Your task to perform on an android device: Toggle the flashlight Image 0: 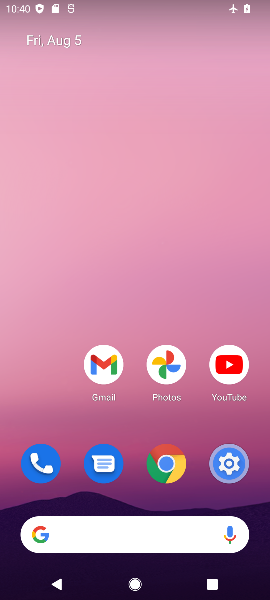
Step 0: drag from (143, 476) to (147, 53)
Your task to perform on an android device: Toggle the flashlight Image 1: 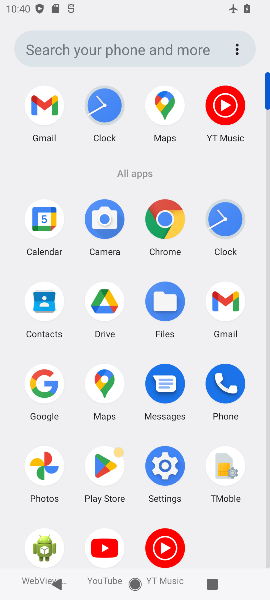
Step 1: drag from (127, 24) to (124, 283)
Your task to perform on an android device: Toggle the flashlight Image 2: 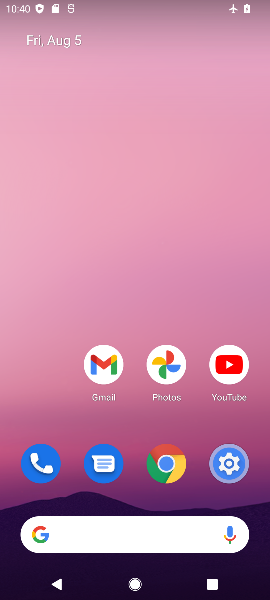
Step 2: drag from (118, 2) to (123, 291)
Your task to perform on an android device: Toggle the flashlight Image 3: 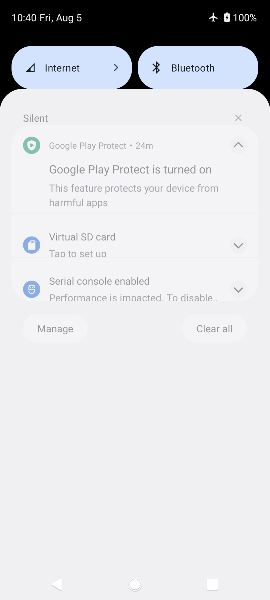
Step 3: drag from (108, 2) to (116, 287)
Your task to perform on an android device: Toggle the flashlight Image 4: 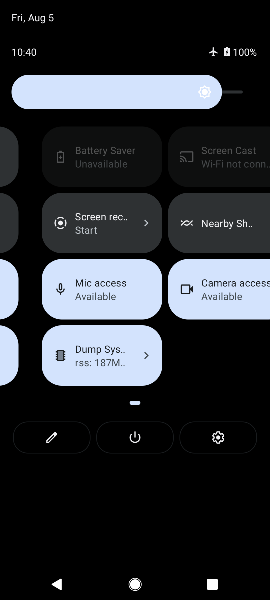
Step 4: click (69, 221)
Your task to perform on an android device: Toggle the flashlight Image 5: 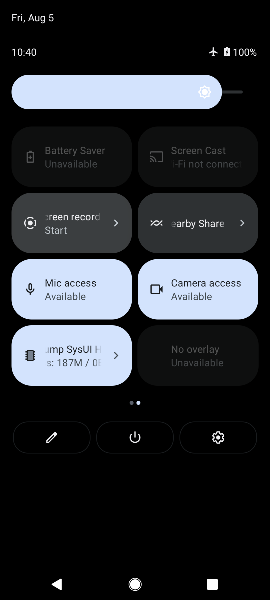
Step 5: drag from (69, 221) to (216, 234)
Your task to perform on an android device: Toggle the flashlight Image 6: 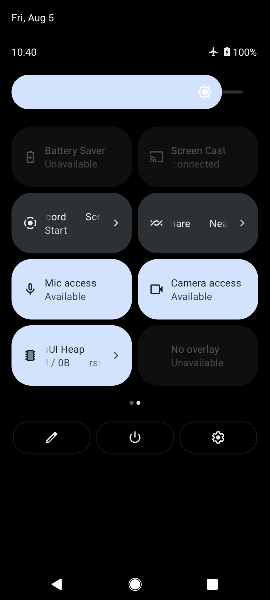
Step 6: click (99, 397)
Your task to perform on an android device: Toggle the flashlight Image 7: 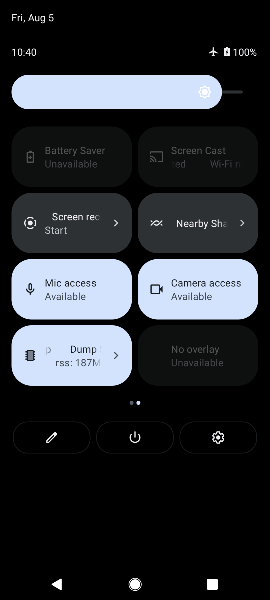
Step 7: drag from (122, 403) to (195, 400)
Your task to perform on an android device: Toggle the flashlight Image 8: 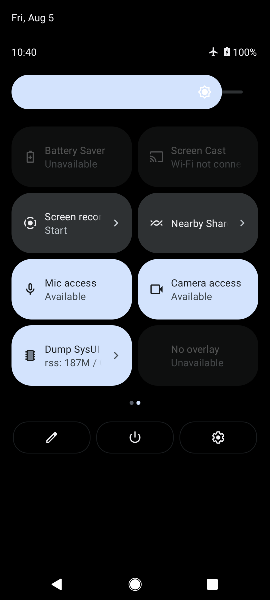
Step 8: drag from (69, 561) to (67, 196)
Your task to perform on an android device: Toggle the flashlight Image 9: 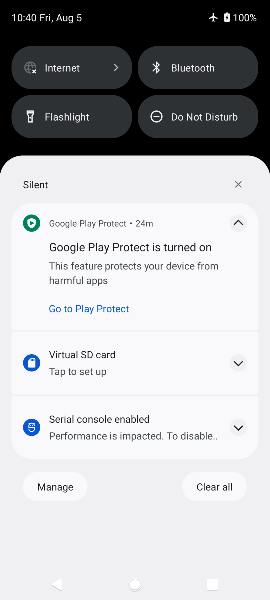
Step 9: press back button
Your task to perform on an android device: Toggle the flashlight Image 10: 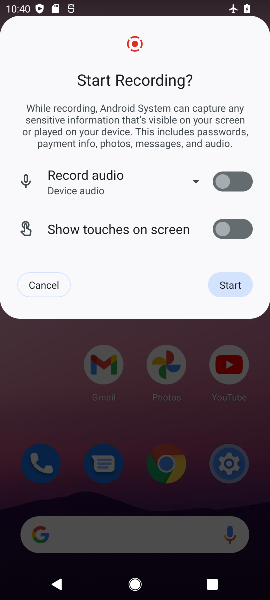
Step 10: press home button
Your task to perform on an android device: Toggle the flashlight Image 11: 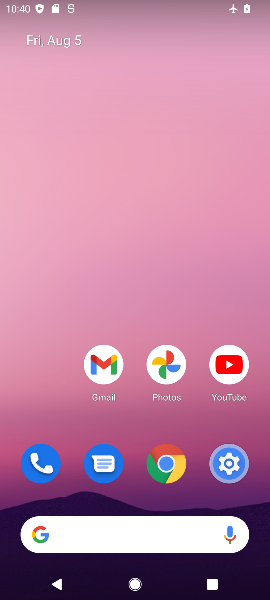
Step 11: drag from (100, 2) to (101, 317)
Your task to perform on an android device: Toggle the flashlight Image 12: 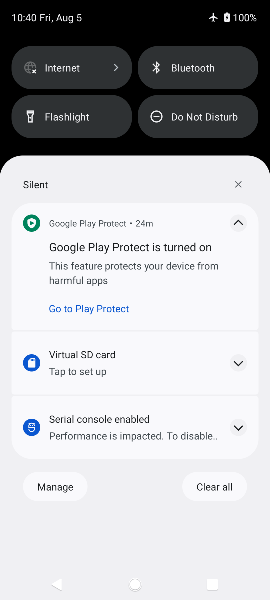
Step 12: click (63, 122)
Your task to perform on an android device: Toggle the flashlight Image 13: 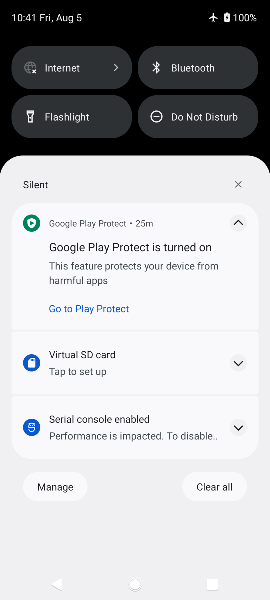
Step 13: task complete